Your task to perform on an android device: add a label to a message in the gmail app Image 0: 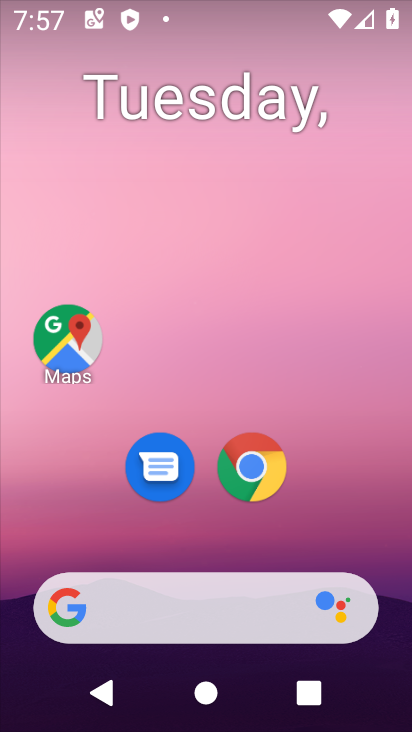
Step 0: drag from (395, 595) to (349, 146)
Your task to perform on an android device: add a label to a message in the gmail app Image 1: 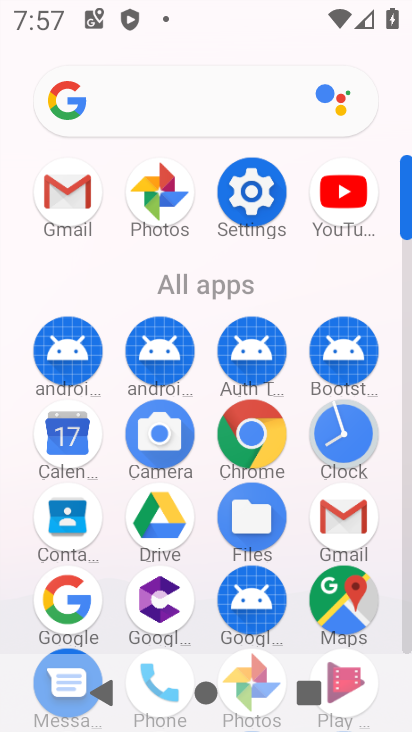
Step 1: click (61, 200)
Your task to perform on an android device: add a label to a message in the gmail app Image 2: 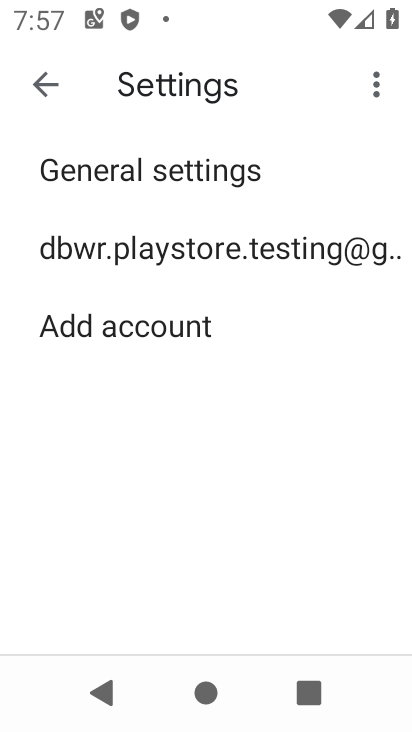
Step 2: click (46, 91)
Your task to perform on an android device: add a label to a message in the gmail app Image 3: 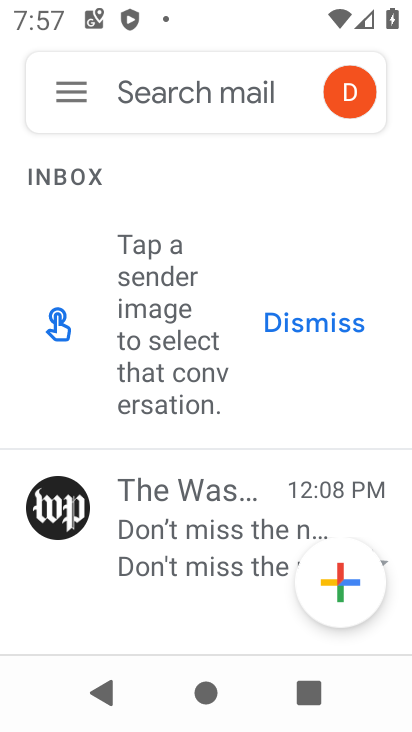
Step 3: click (226, 567)
Your task to perform on an android device: add a label to a message in the gmail app Image 4: 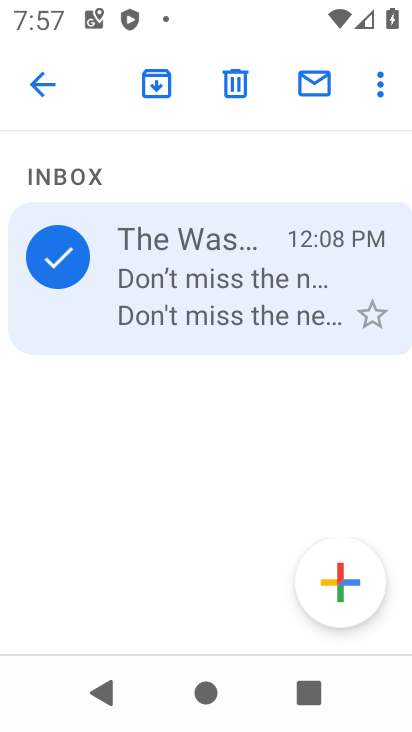
Step 4: click (380, 84)
Your task to perform on an android device: add a label to a message in the gmail app Image 5: 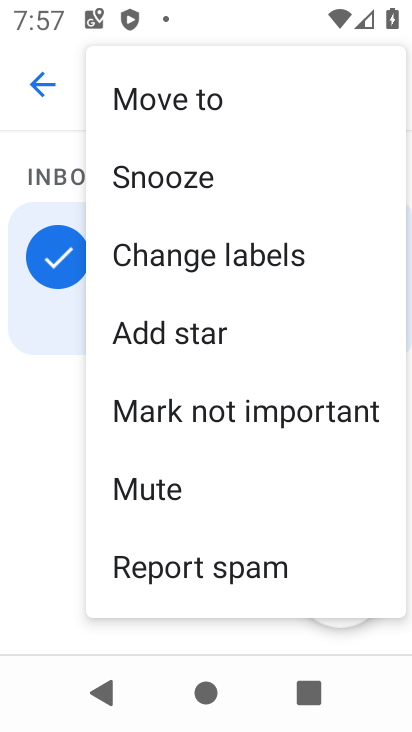
Step 5: click (341, 242)
Your task to perform on an android device: add a label to a message in the gmail app Image 6: 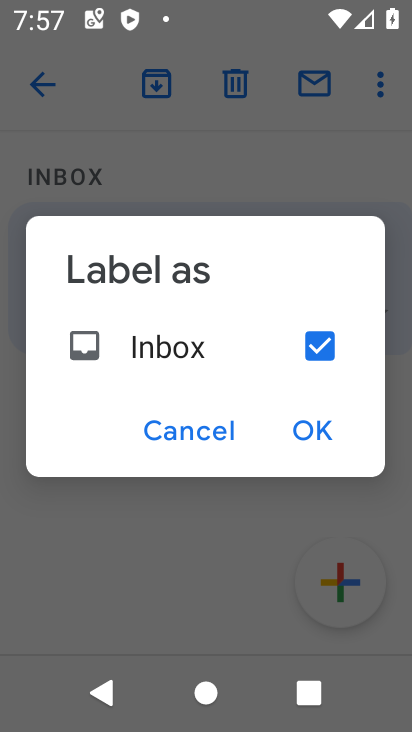
Step 6: click (315, 425)
Your task to perform on an android device: add a label to a message in the gmail app Image 7: 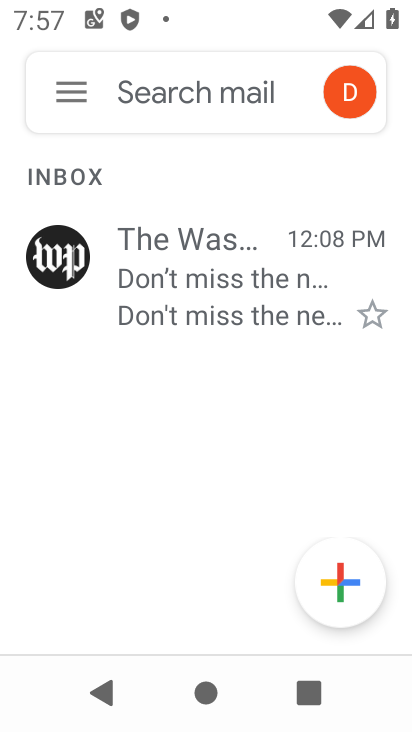
Step 7: task complete